Your task to perform on an android device: set the stopwatch Image 0: 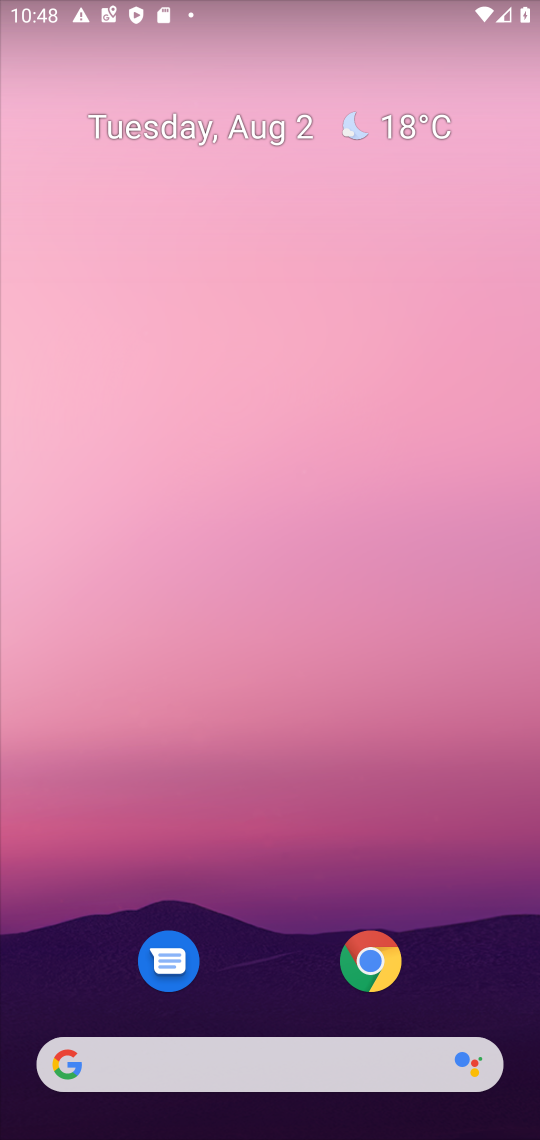
Step 0: press home button
Your task to perform on an android device: set the stopwatch Image 1: 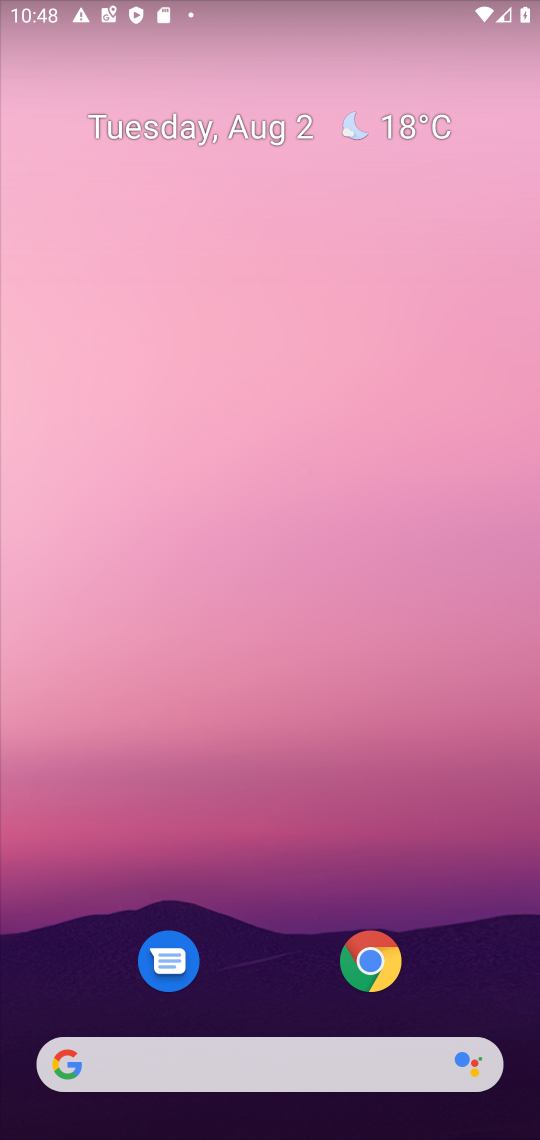
Step 1: press home button
Your task to perform on an android device: set the stopwatch Image 2: 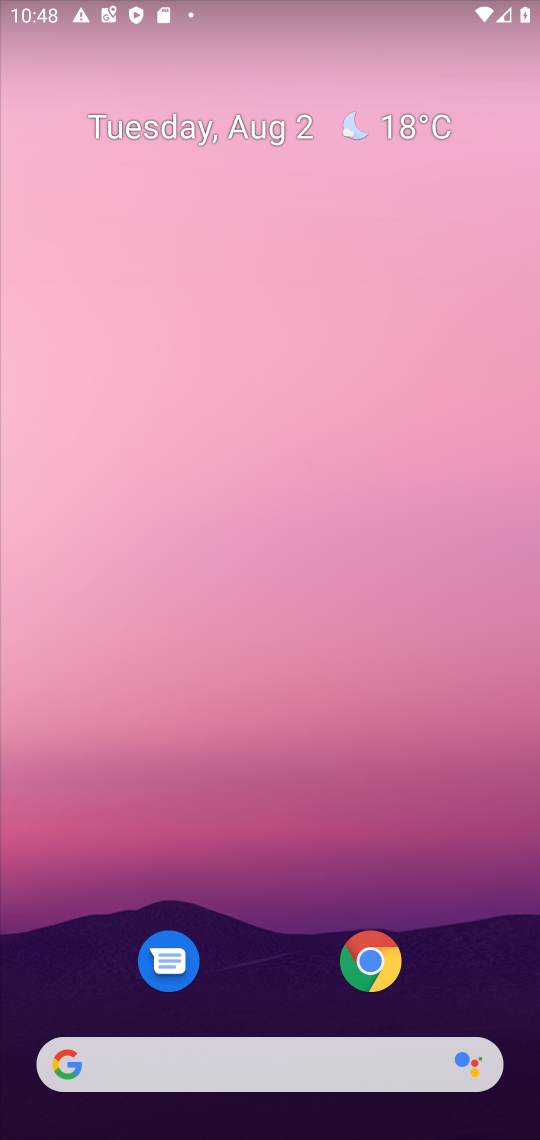
Step 2: press home button
Your task to perform on an android device: set the stopwatch Image 3: 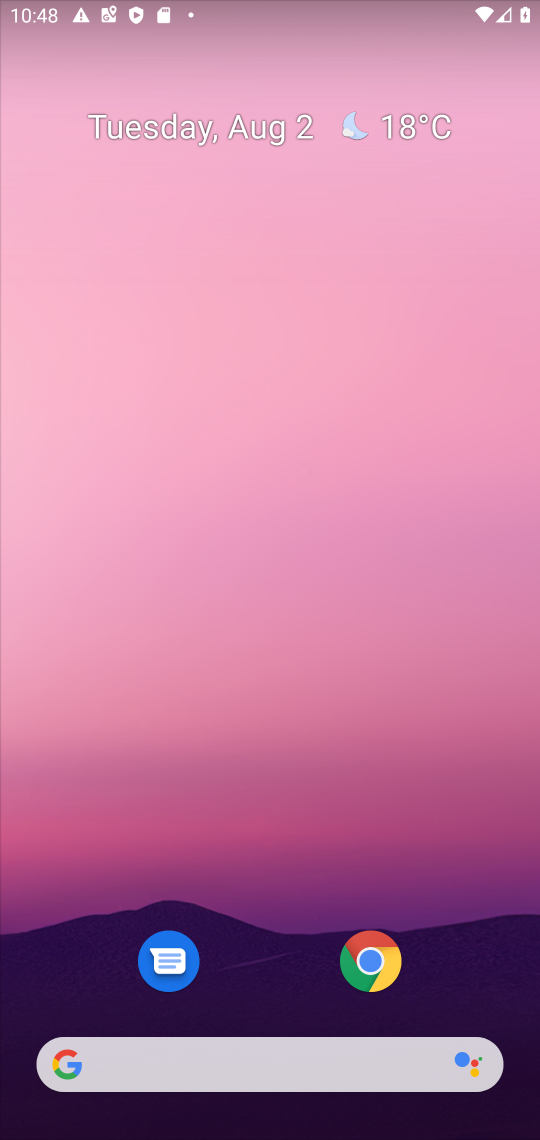
Step 3: drag from (309, 860) to (249, 36)
Your task to perform on an android device: set the stopwatch Image 4: 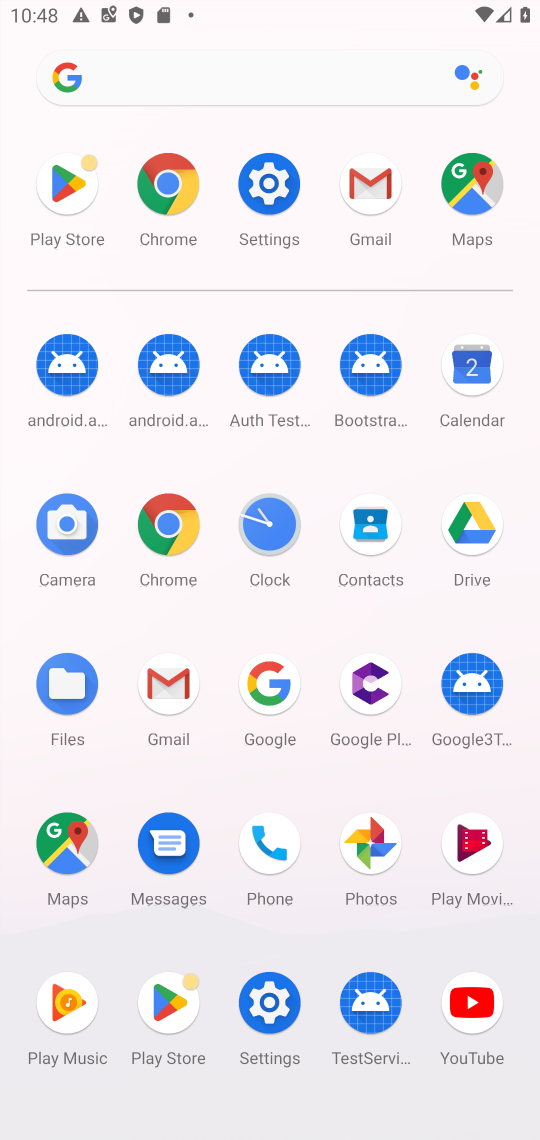
Step 4: click (264, 531)
Your task to perform on an android device: set the stopwatch Image 5: 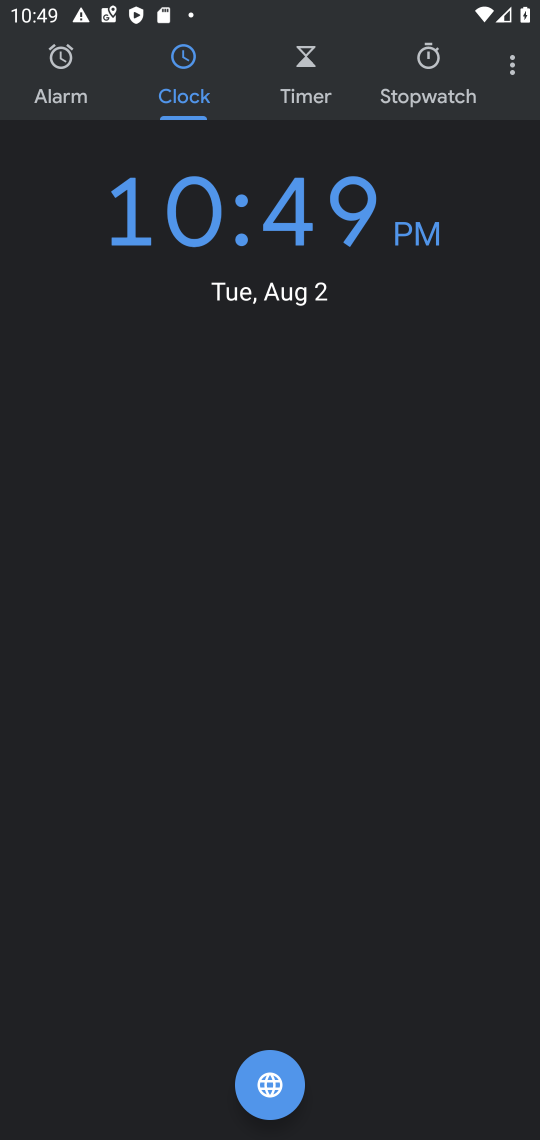
Step 5: click (441, 82)
Your task to perform on an android device: set the stopwatch Image 6: 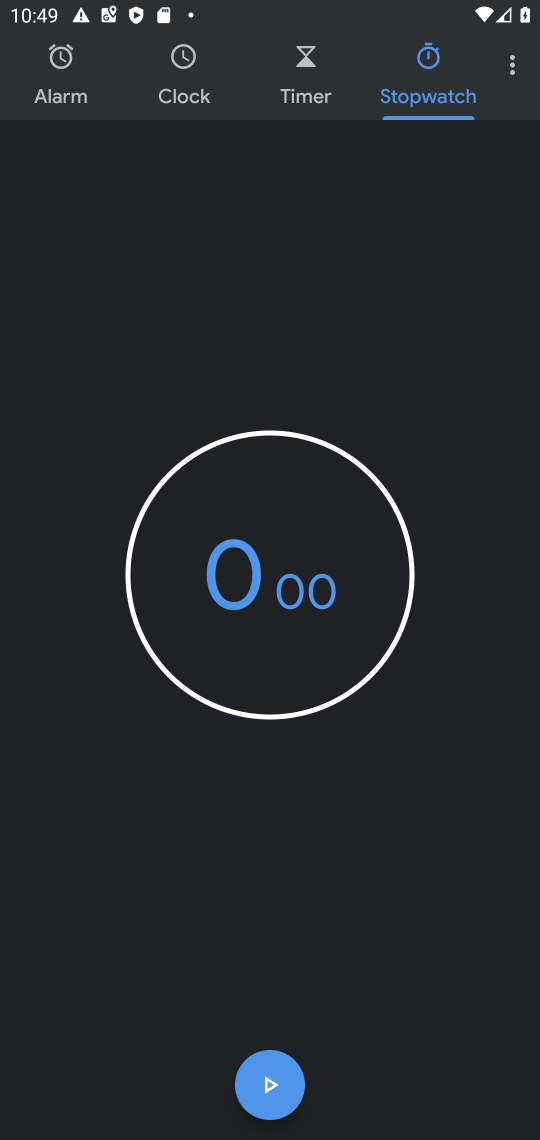
Step 6: click (250, 1082)
Your task to perform on an android device: set the stopwatch Image 7: 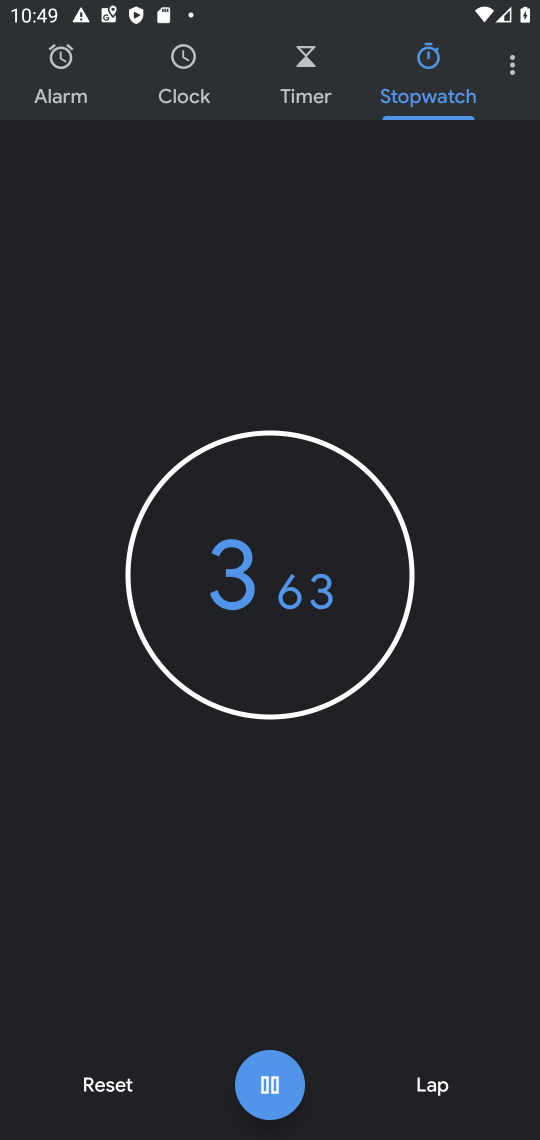
Step 7: task complete